Your task to perform on an android device: Go to ESPN.com Image 0: 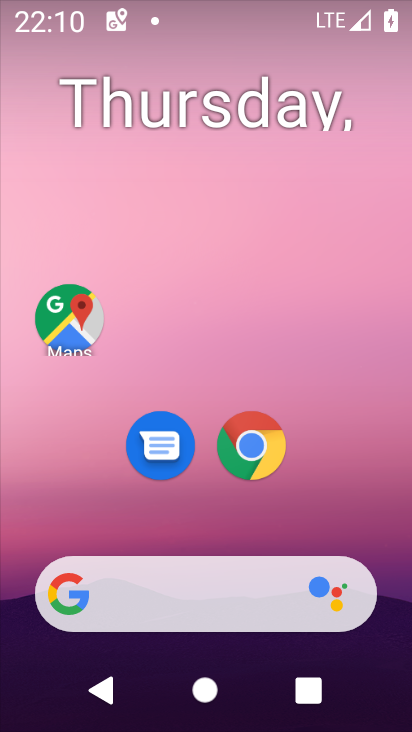
Step 0: drag from (256, 526) to (306, 144)
Your task to perform on an android device: Go to ESPN.com Image 1: 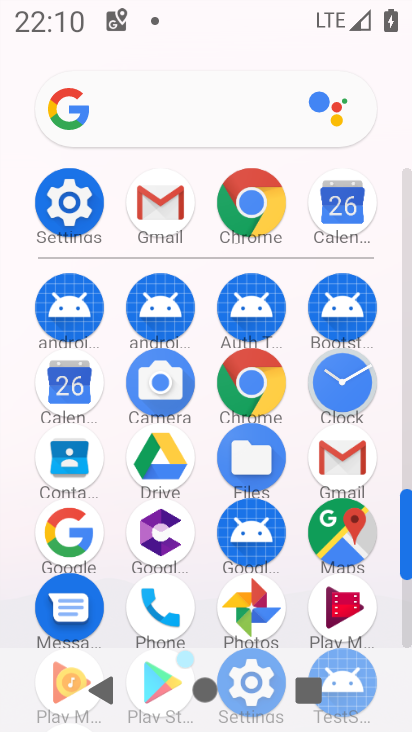
Step 1: click (250, 382)
Your task to perform on an android device: Go to ESPN.com Image 2: 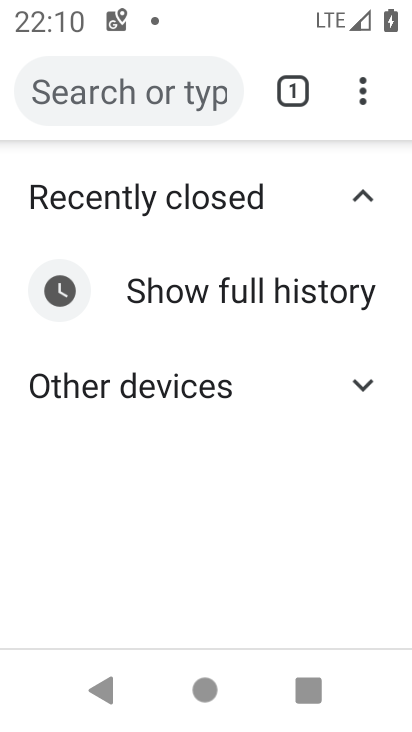
Step 2: click (146, 104)
Your task to perform on an android device: Go to ESPN.com Image 3: 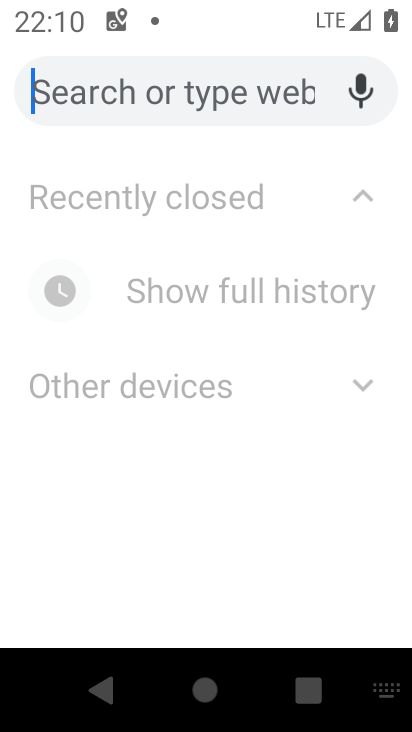
Step 3: type "ESPN.com"
Your task to perform on an android device: Go to ESPN.com Image 4: 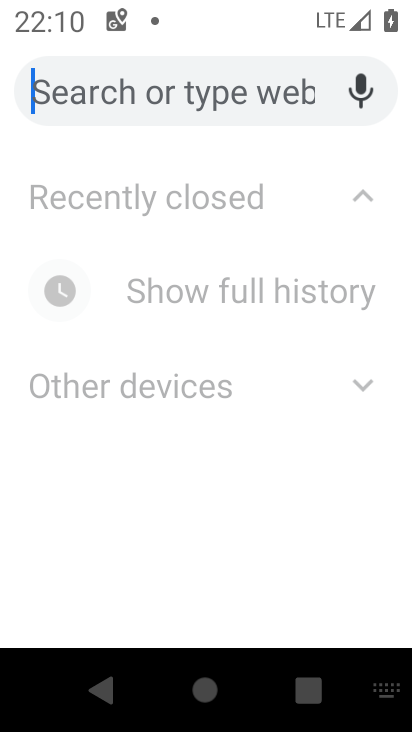
Step 4: click (227, 106)
Your task to perform on an android device: Go to ESPN.com Image 5: 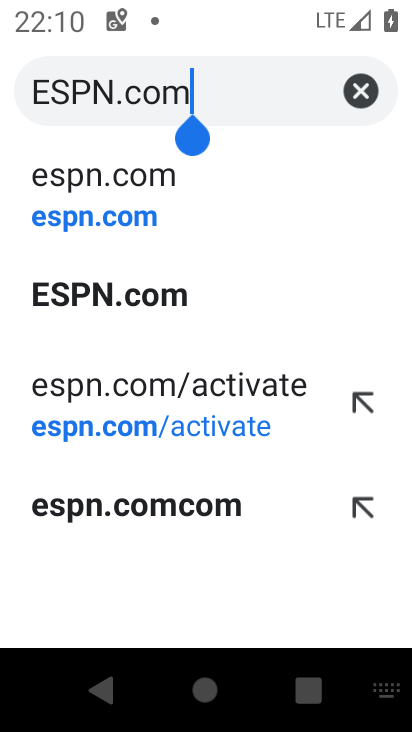
Step 5: click (223, 199)
Your task to perform on an android device: Go to ESPN.com Image 6: 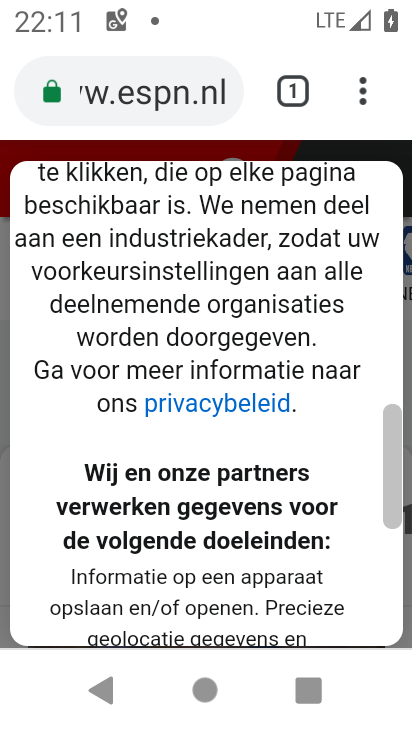
Step 6: task complete